Your task to perform on an android device: turn off notifications in google photos Image 0: 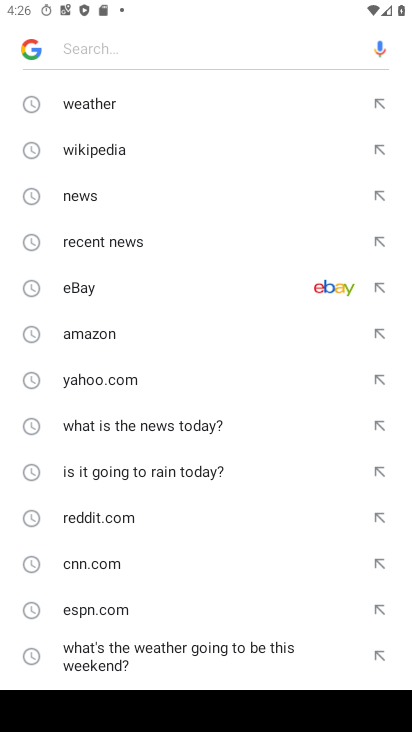
Step 0: press home button
Your task to perform on an android device: turn off notifications in google photos Image 1: 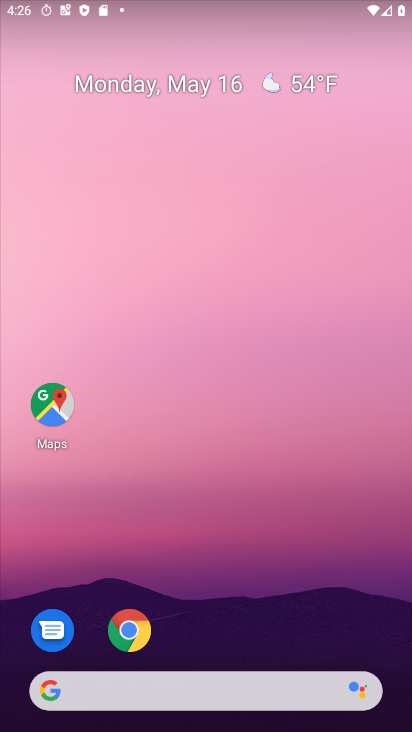
Step 1: drag from (236, 619) to (299, 36)
Your task to perform on an android device: turn off notifications in google photos Image 2: 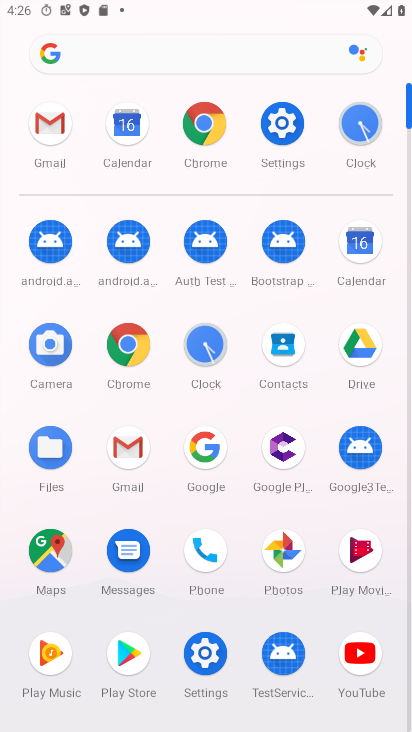
Step 2: click (298, 555)
Your task to perform on an android device: turn off notifications in google photos Image 3: 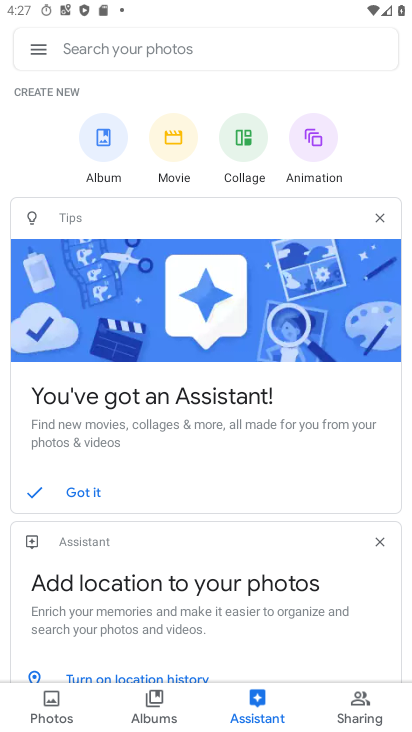
Step 3: click (41, 56)
Your task to perform on an android device: turn off notifications in google photos Image 4: 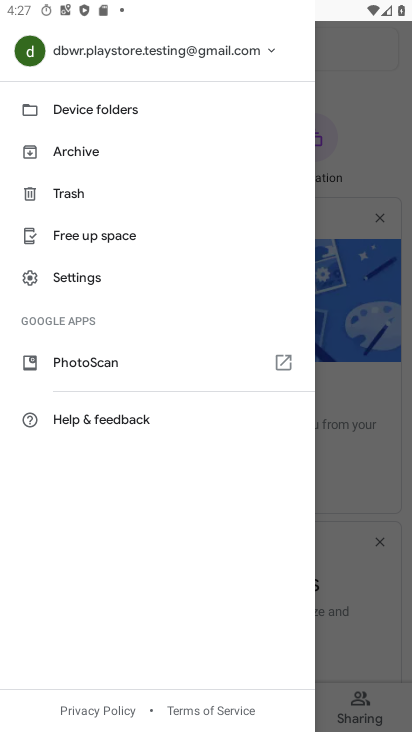
Step 4: click (144, 272)
Your task to perform on an android device: turn off notifications in google photos Image 5: 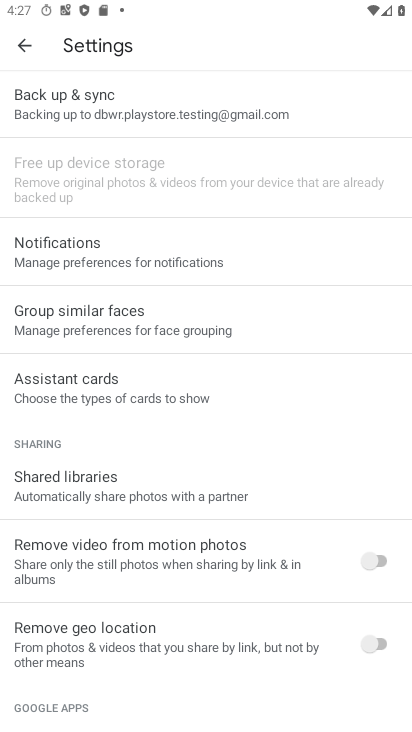
Step 5: click (213, 245)
Your task to perform on an android device: turn off notifications in google photos Image 6: 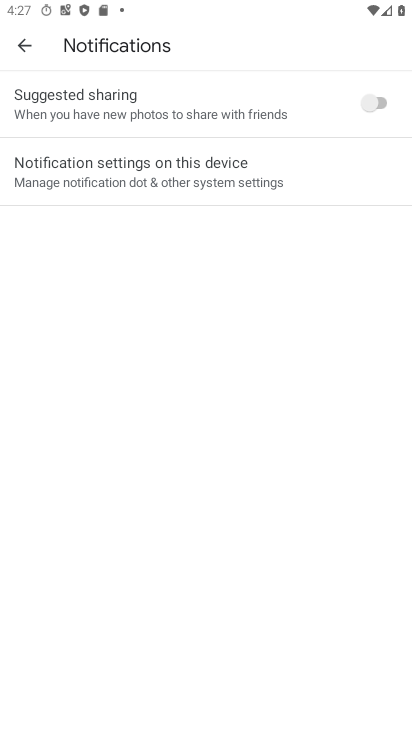
Step 6: click (305, 177)
Your task to perform on an android device: turn off notifications in google photos Image 7: 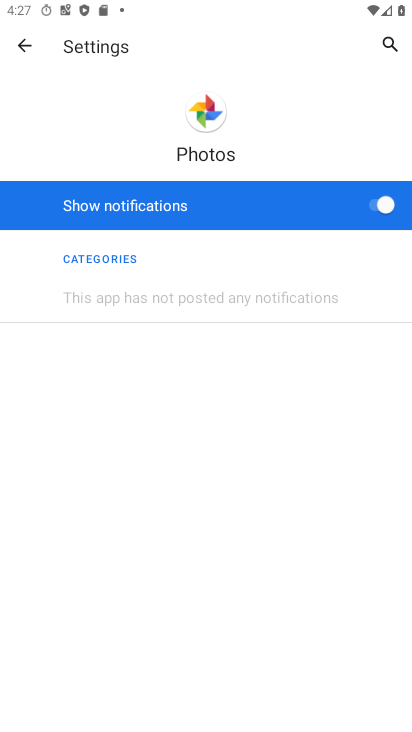
Step 7: click (375, 212)
Your task to perform on an android device: turn off notifications in google photos Image 8: 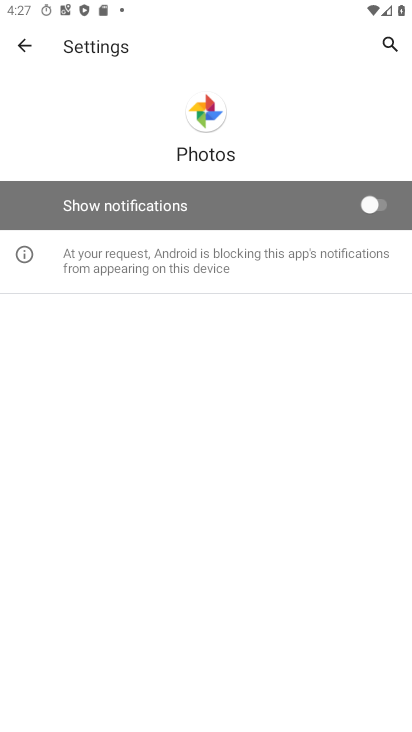
Step 8: task complete